Your task to perform on an android device: Do I have any events today? Image 0: 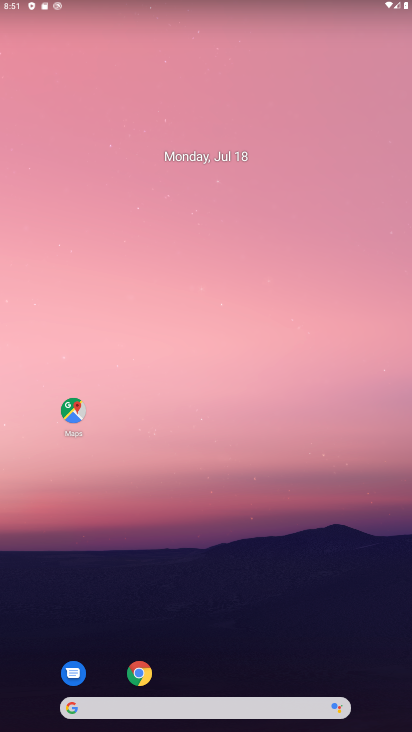
Step 0: drag from (156, 376) to (131, 512)
Your task to perform on an android device: Do I have any events today? Image 1: 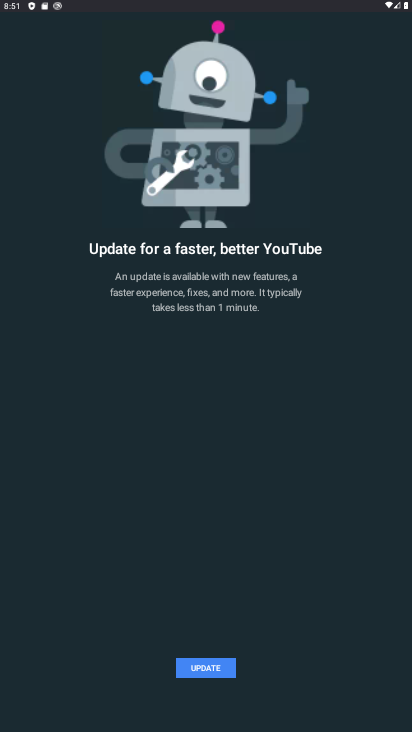
Step 1: press home button
Your task to perform on an android device: Do I have any events today? Image 2: 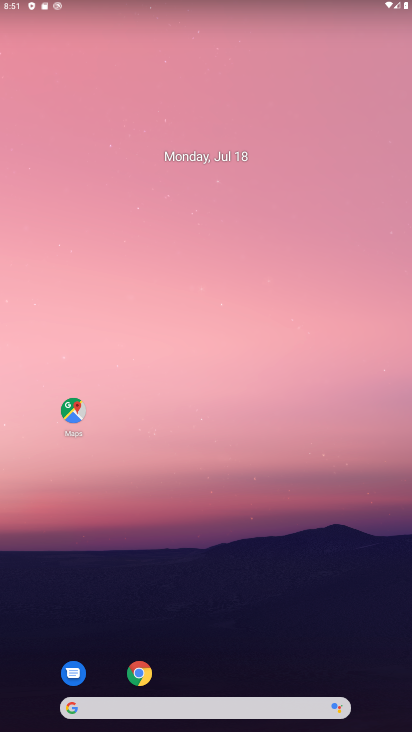
Step 2: drag from (239, 651) to (360, 121)
Your task to perform on an android device: Do I have any events today? Image 3: 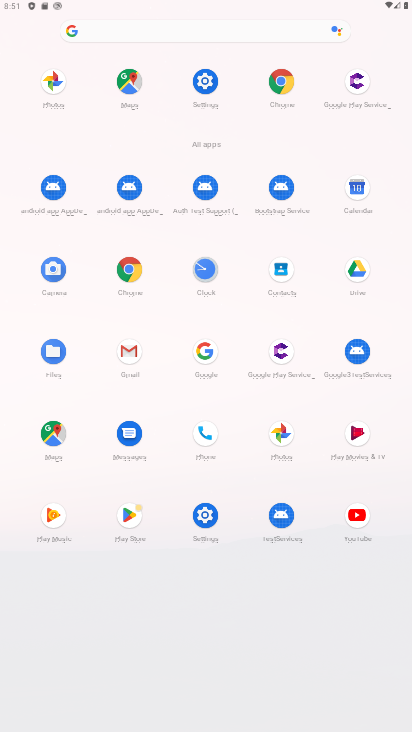
Step 3: click (355, 190)
Your task to perform on an android device: Do I have any events today? Image 4: 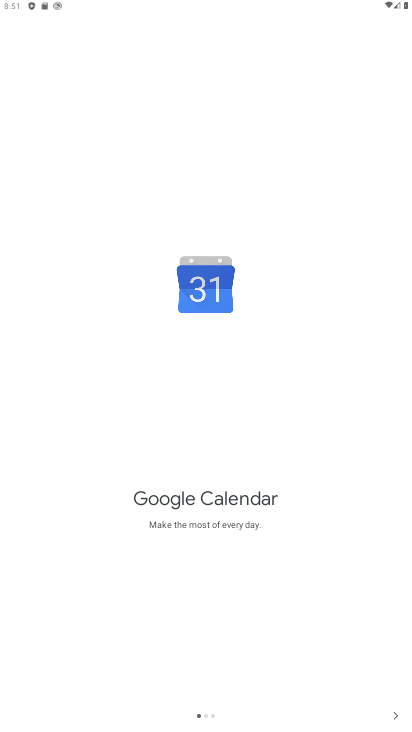
Step 4: click (390, 714)
Your task to perform on an android device: Do I have any events today? Image 5: 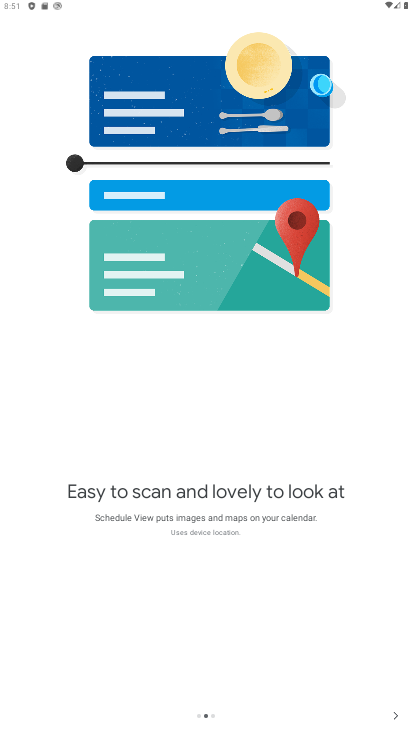
Step 5: click (394, 715)
Your task to perform on an android device: Do I have any events today? Image 6: 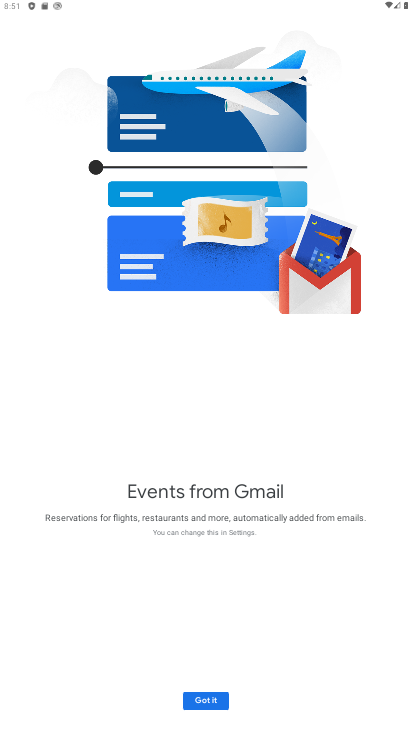
Step 6: click (203, 705)
Your task to perform on an android device: Do I have any events today? Image 7: 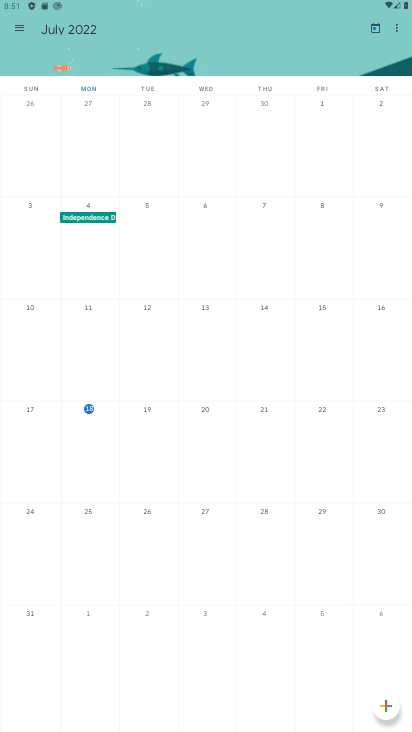
Step 7: click (149, 409)
Your task to perform on an android device: Do I have any events today? Image 8: 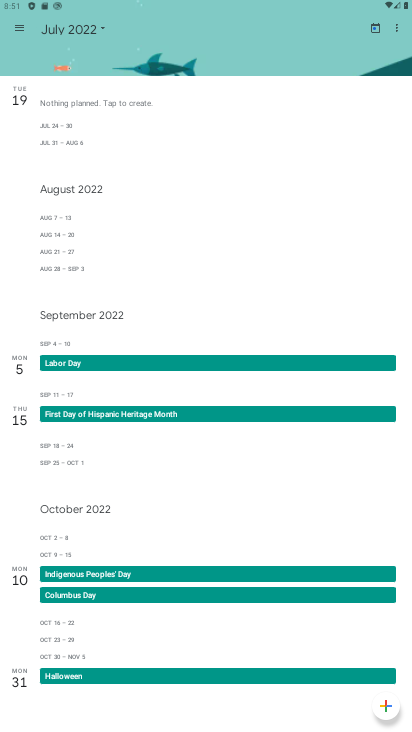
Step 8: task complete